Your task to perform on an android device: turn on notifications settings in the gmail app Image 0: 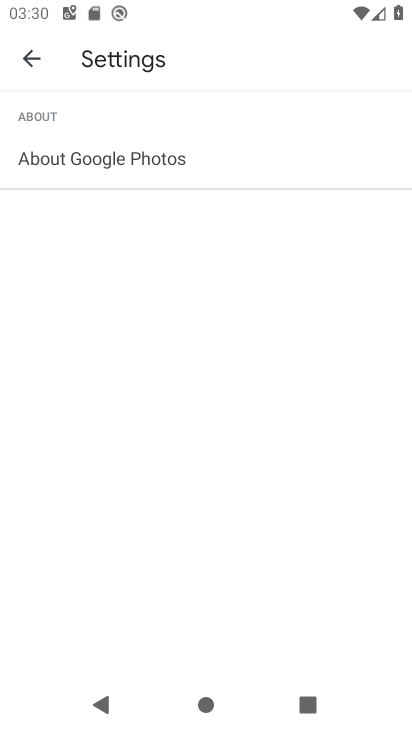
Step 0: press home button
Your task to perform on an android device: turn on notifications settings in the gmail app Image 1: 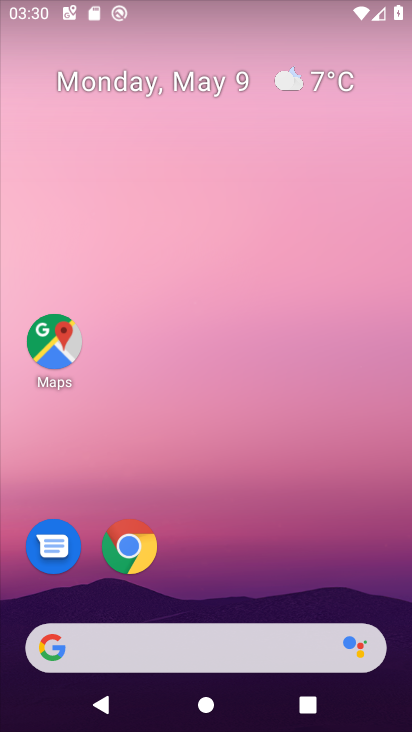
Step 1: drag from (238, 526) to (157, 37)
Your task to perform on an android device: turn on notifications settings in the gmail app Image 2: 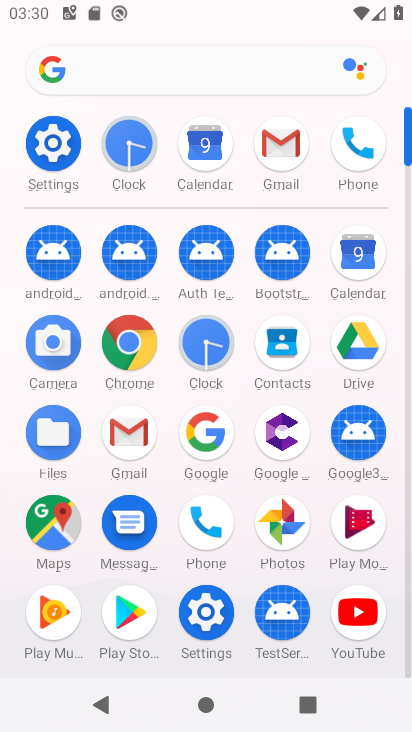
Step 2: click (274, 157)
Your task to perform on an android device: turn on notifications settings in the gmail app Image 3: 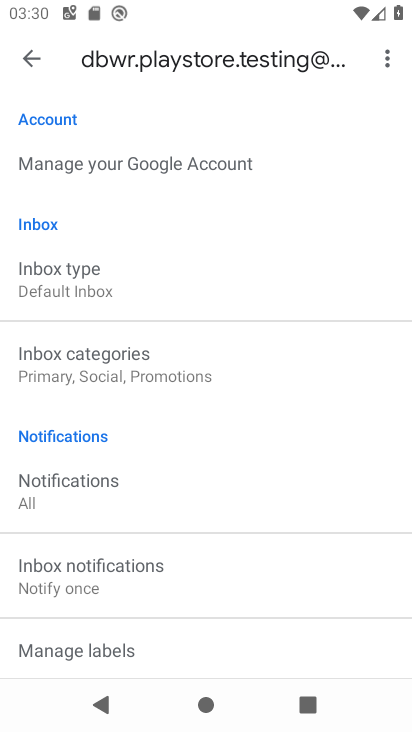
Step 3: drag from (169, 571) to (195, 303)
Your task to perform on an android device: turn on notifications settings in the gmail app Image 4: 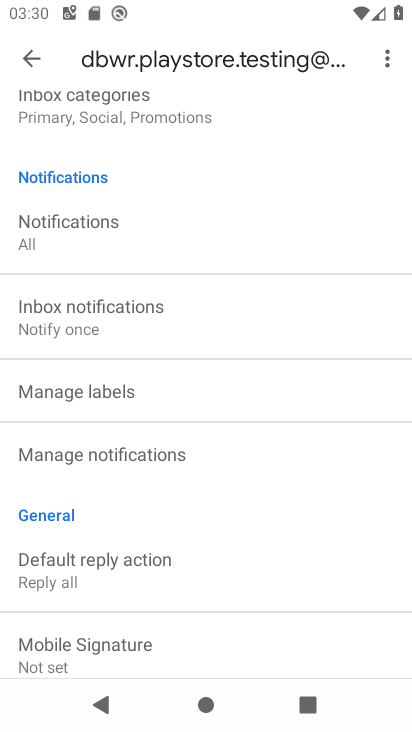
Step 4: click (199, 444)
Your task to perform on an android device: turn on notifications settings in the gmail app Image 5: 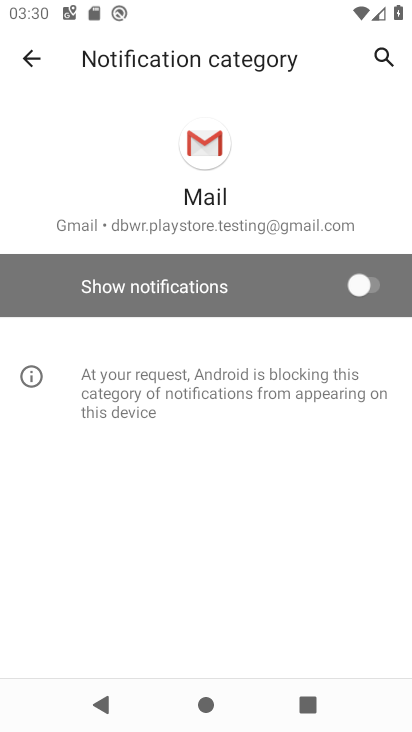
Step 5: click (370, 273)
Your task to perform on an android device: turn on notifications settings in the gmail app Image 6: 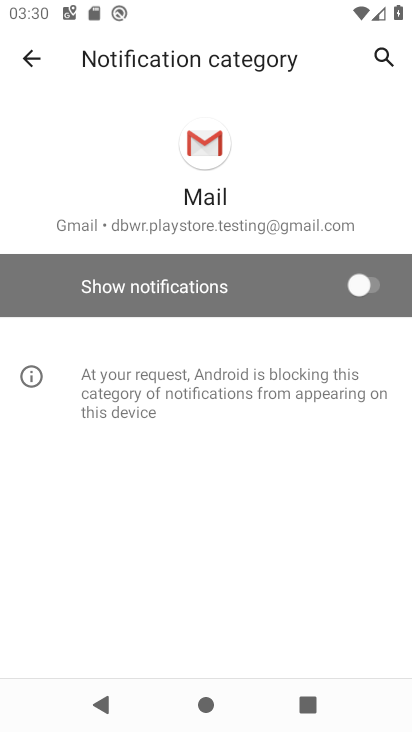
Step 6: click (364, 288)
Your task to perform on an android device: turn on notifications settings in the gmail app Image 7: 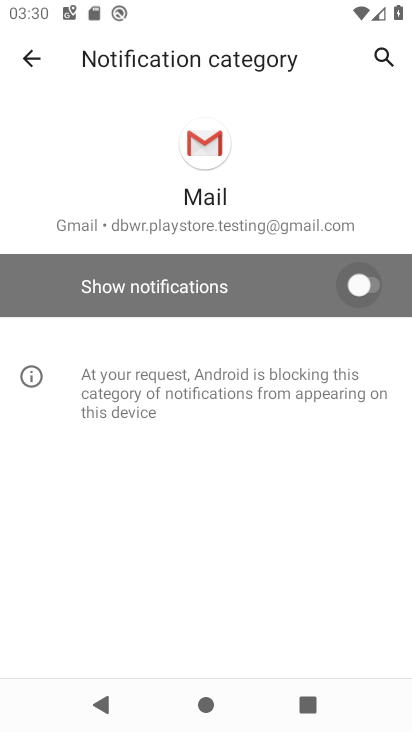
Step 7: click (364, 286)
Your task to perform on an android device: turn on notifications settings in the gmail app Image 8: 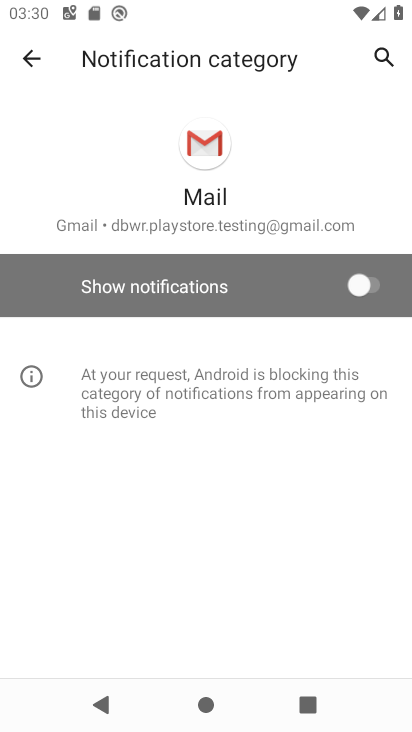
Step 8: click (37, 47)
Your task to perform on an android device: turn on notifications settings in the gmail app Image 9: 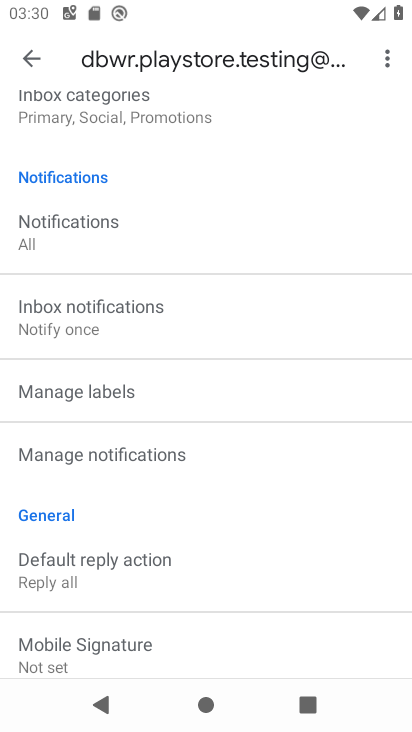
Step 9: click (33, 48)
Your task to perform on an android device: turn on notifications settings in the gmail app Image 10: 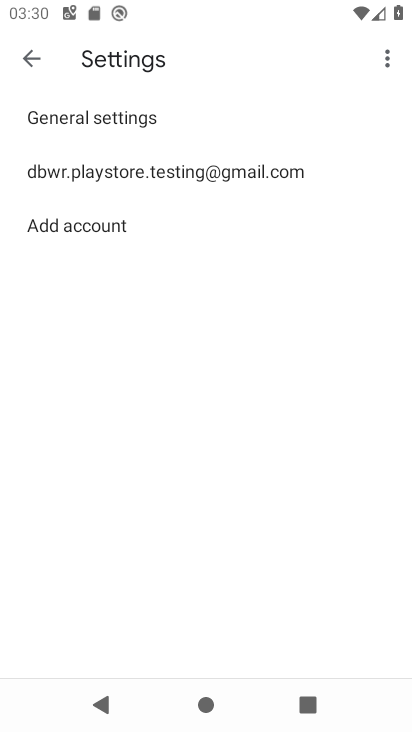
Step 10: click (130, 106)
Your task to perform on an android device: turn on notifications settings in the gmail app Image 11: 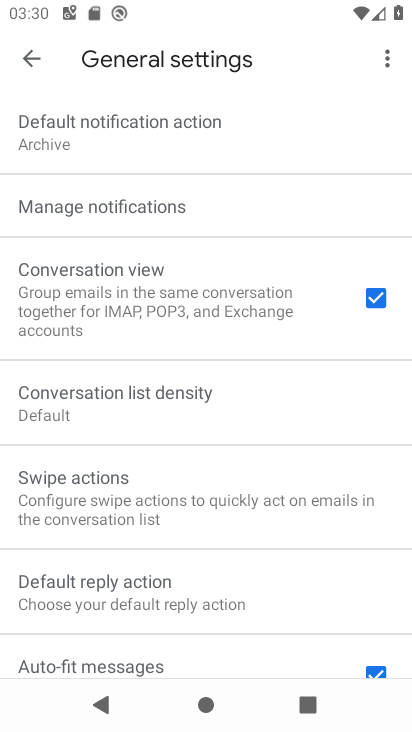
Step 11: click (171, 201)
Your task to perform on an android device: turn on notifications settings in the gmail app Image 12: 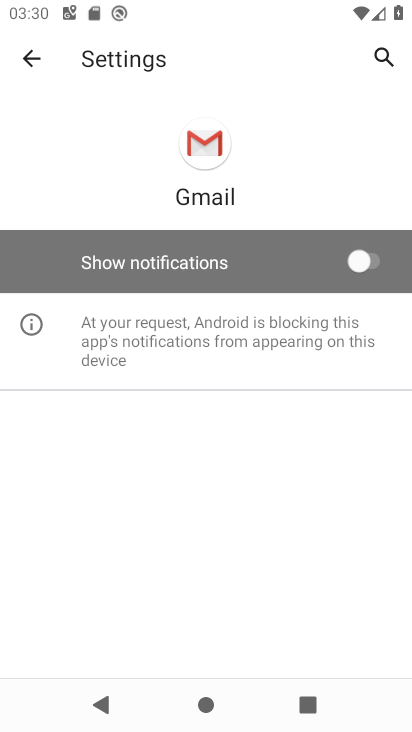
Step 12: click (358, 254)
Your task to perform on an android device: turn on notifications settings in the gmail app Image 13: 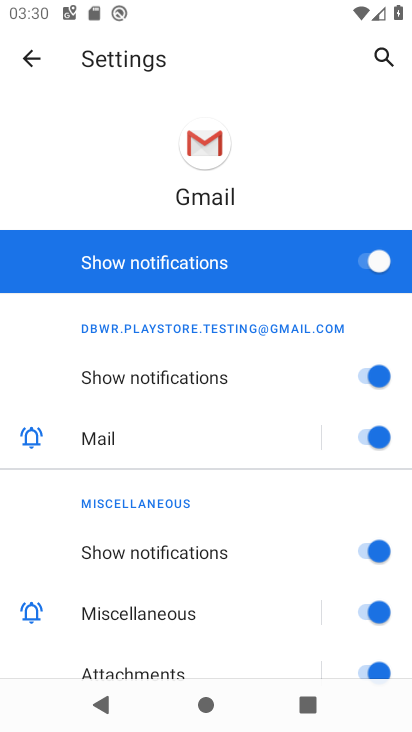
Step 13: task complete